Your task to perform on an android device: What's on my calendar today? Image 0: 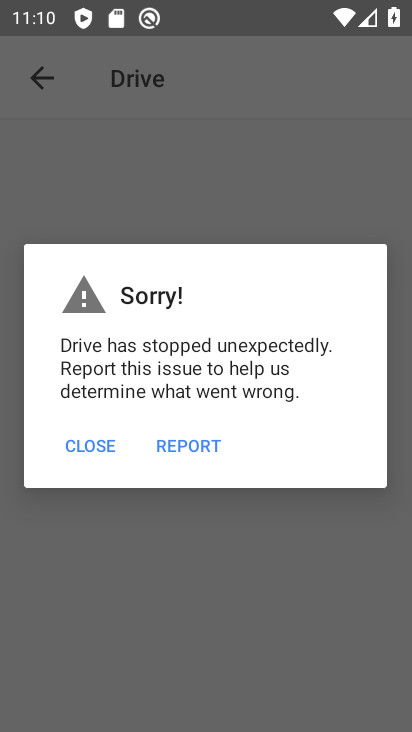
Step 0: press home button
Your task to perform on an android device: What's on my calendar today? Image 1: 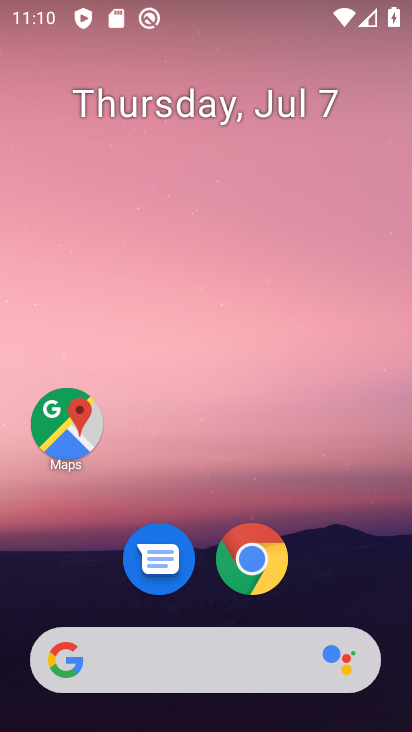
Step 1: drag from (357, 566) to (329, 75)
Your task to perform on an android device: What's on my calendar today? Image 2: 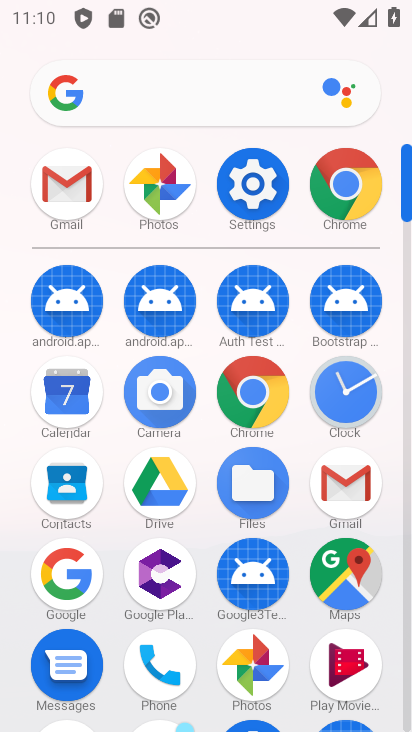
Step 2: click (73, 402)
Your task to perform on an android device: What's on my calendar today? Image 3: 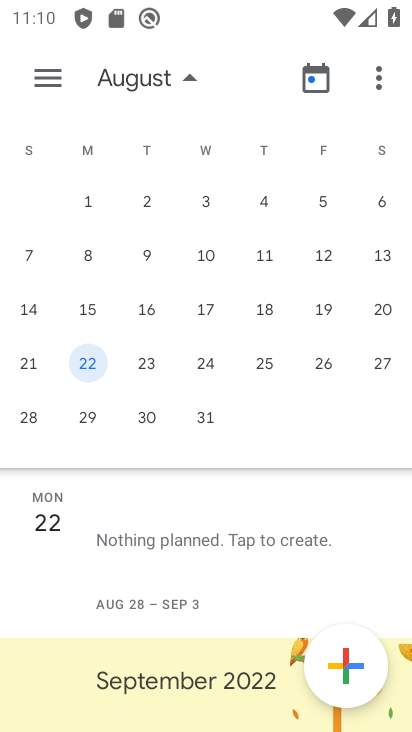
Step 3: drag from (178, 552) to (189, 340)
Your task to perform on an android device: What's on my calendar today? Image 4: 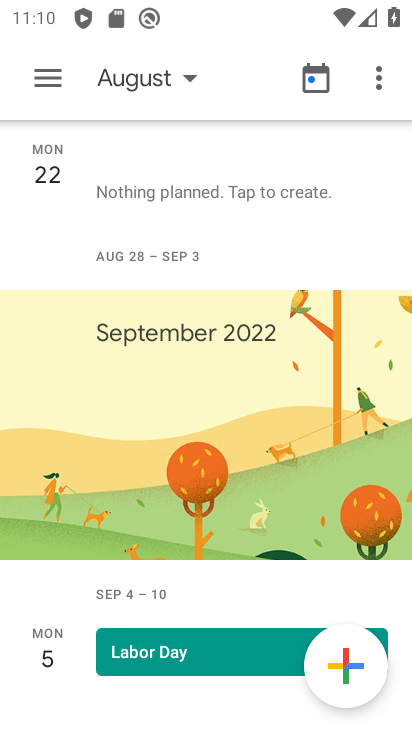
Step 4: drag from (216, 201) to (230, 562)
Your task to perform on an android device: What's on my calendar today? Image 5: 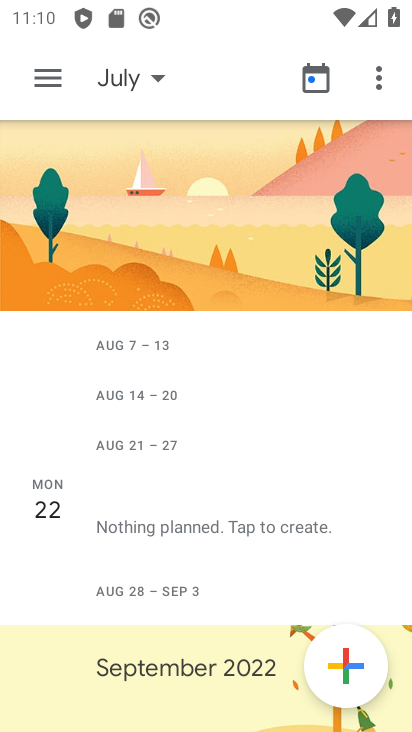
Step 5: drag from (203, 209) to (219, 549)
Your task to perform on an android device: What's on my calendar today? Image 6: 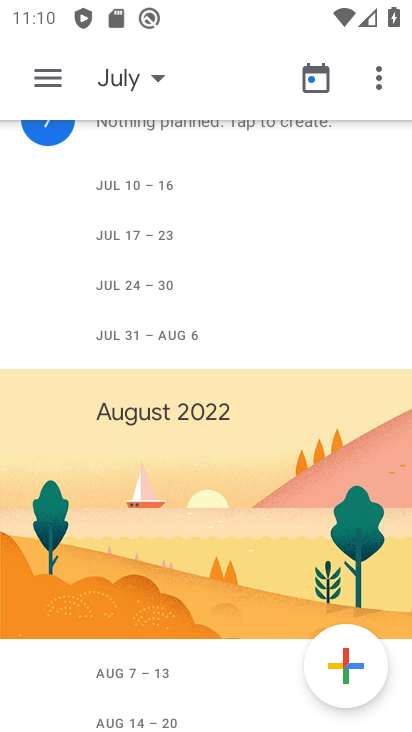
Step 6: click (157, 68)
Your task to perform on an android device: What's on my calendar today? Image 7: 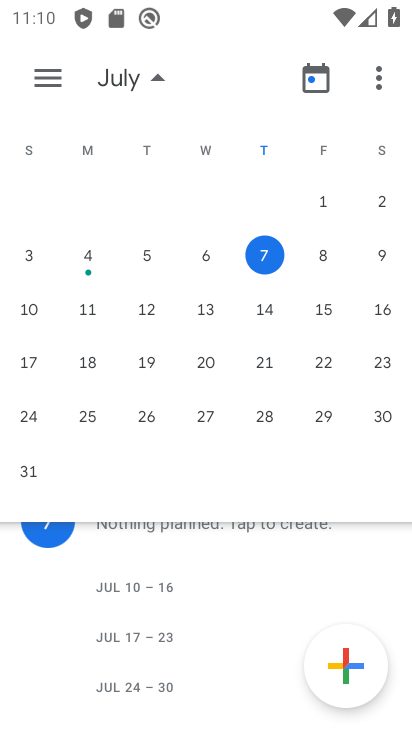
Step 7: click (327, 251)
Your task to perform on an android device: What's on my calendar today? Image 8: 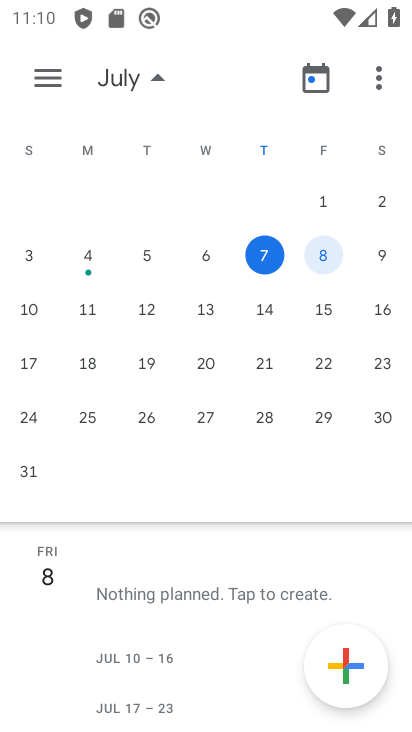
Step 8: task complete